Your task to perform on an android device: turn off javascript in the chrome app Image 0: 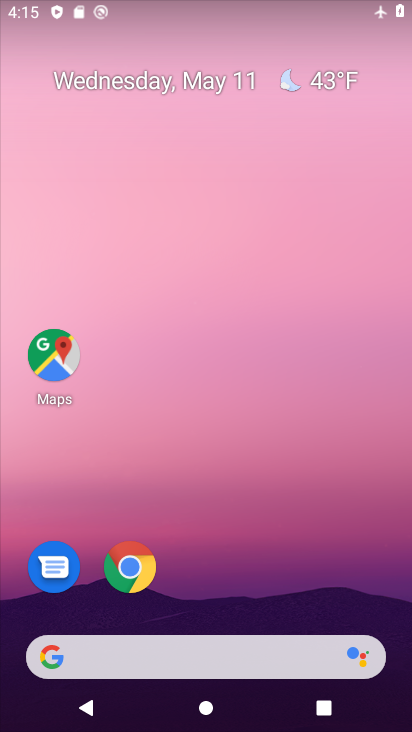
Step 0: click (131, 560)
Your task to perform on an android device: turn off javascript in the chrome app Image 1: 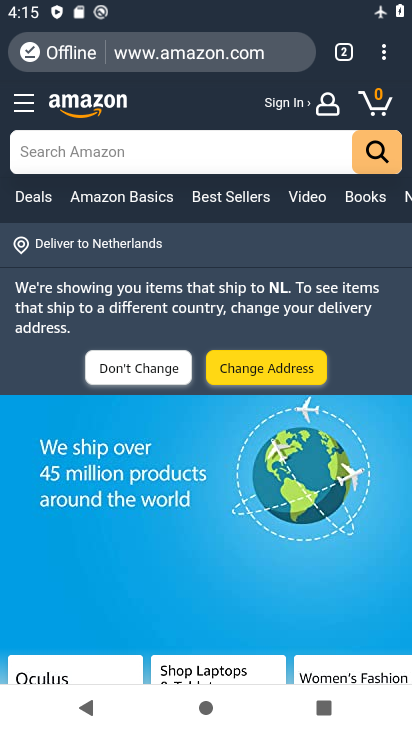
Step 1: click (389, 48)
Your task to perform on an android device: turn off javascript in the chrome app Image 2: 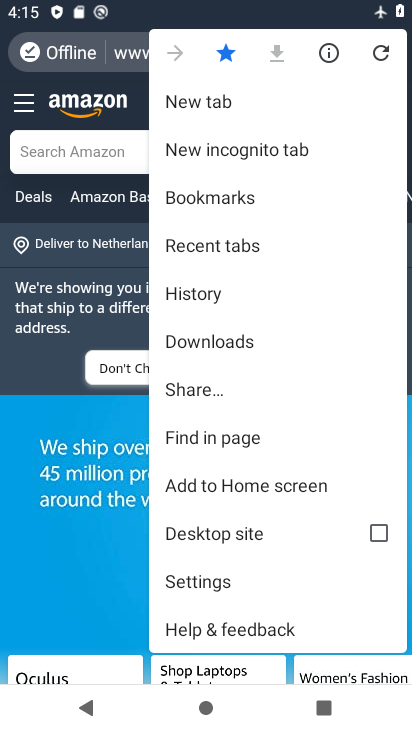
Step 2: click (255, 589)
Your task to perform on an android device: turn off javascript in the chrome app Image 3: 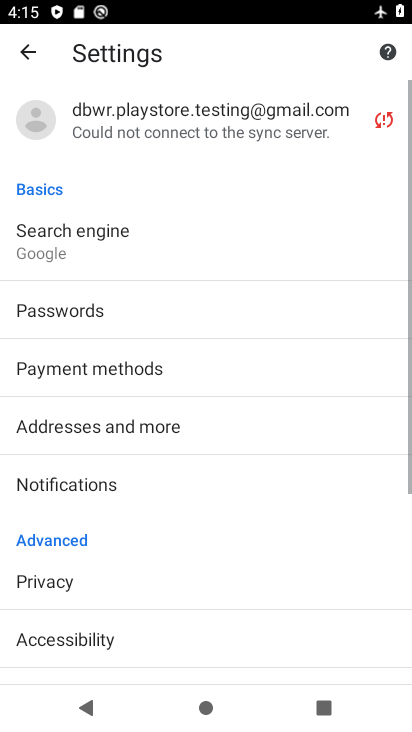
Step 3: drag from (197, 604) to (196, 108)
Your task to perform on an android device: turn off javascript in the chrome app Image 4: 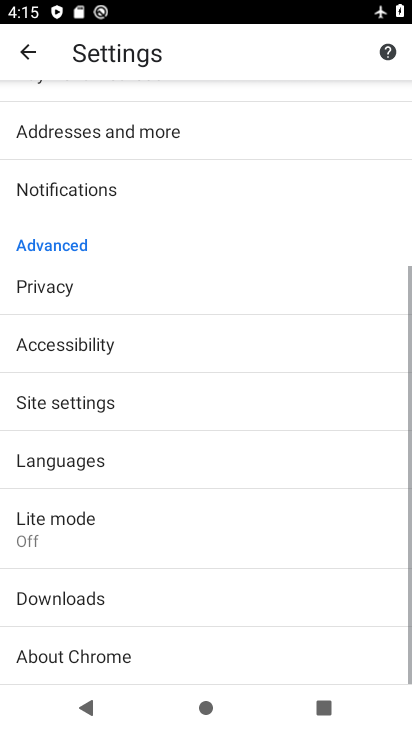
Step 4: drag from (141, 550) to (199, 119)
Your task to perform on an android device: turn off javascript in the chrome app Image 5: 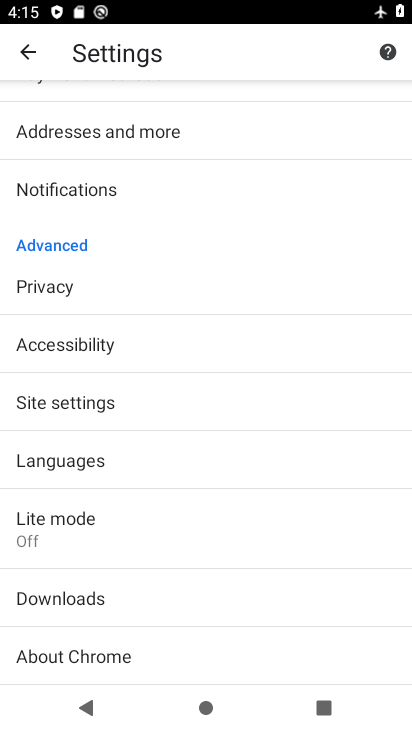
Step 5: drag from (149, 559) to (213, 128)
Your task to perform on an android device: turn off javascript in the chrome app Image 6: 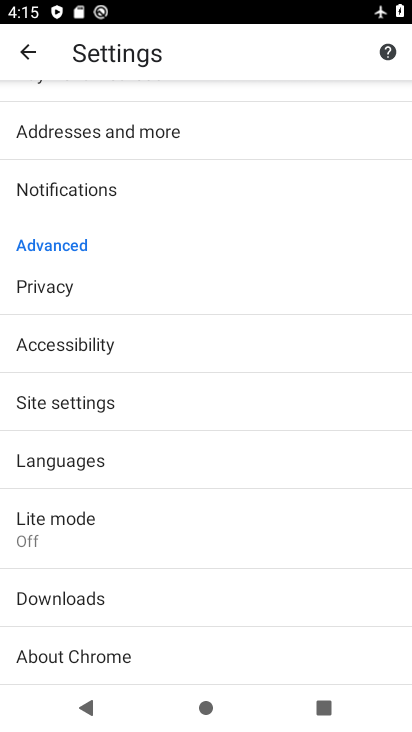
Step 6: click (119, 385)
Your task to perform on an android device: turn off javascript in the chrome app Image 7: 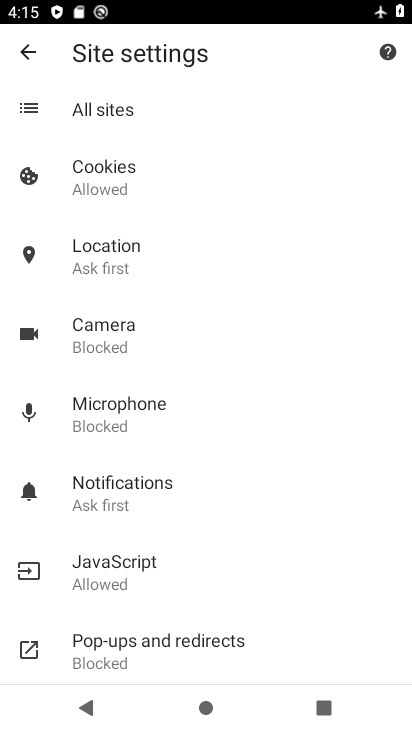
Step 7: click (150, 553)
Your task to perform on an android device: turn off javascript in the chrome app Image 8: 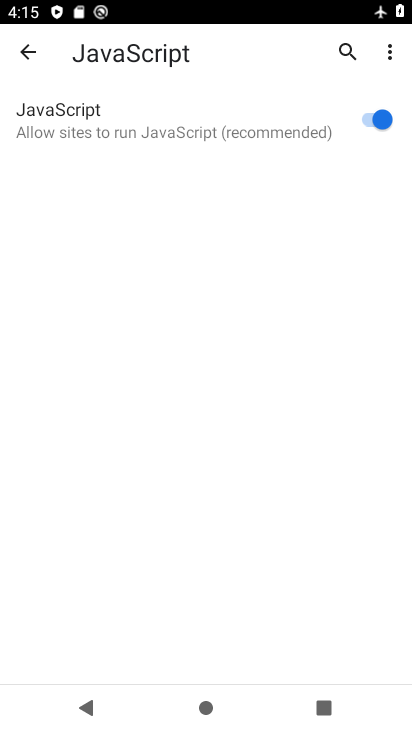
Step 8: click (361, 115)
Your task to perform on an android device: turn off javascript in the chrome app Image 9: 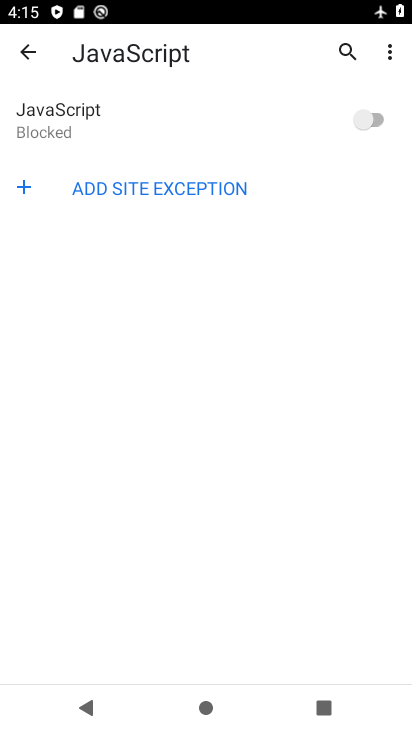
Step 9: task complete